Your task to perform on an android device: Toggle the flashlight Image 0: 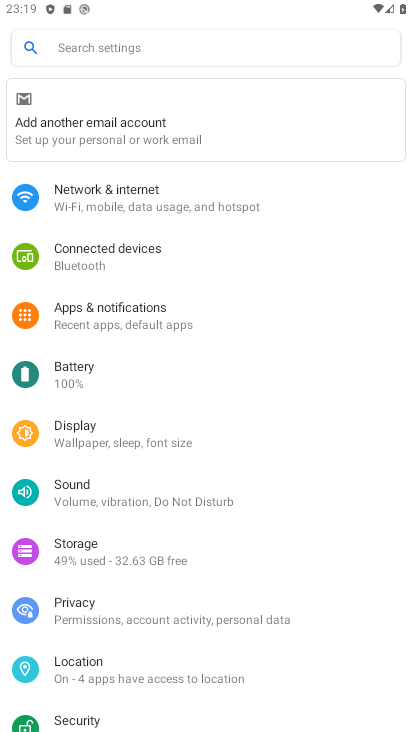
Step 0: press home button
Your task to perform on an android device: Toggle the flashlight Image 1: 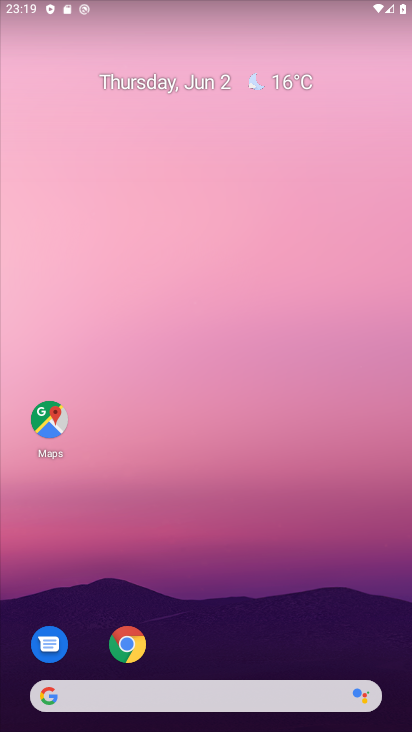
Step 1: drag from (175, 596) to (224, 193)
Your task to perform on an android device: Toggle the flashlight Image 2: 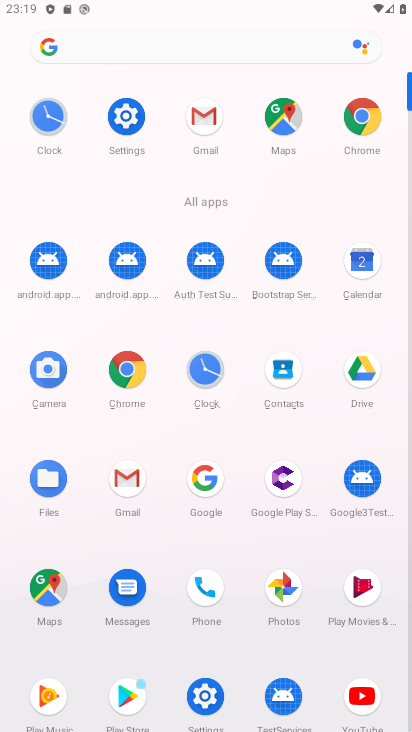
Step 2: click (202, 699)
Your task to perform on an android device: Toggle the flashlight Image 3: 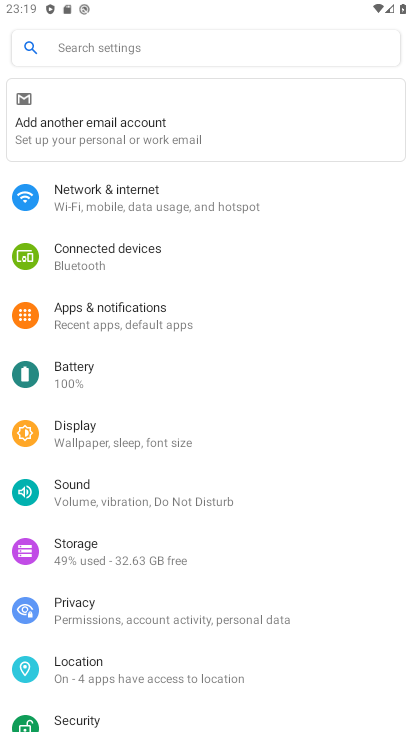
Step 3: click (101, 433)
Your task to perform on an android device: Toggle the flashlight Image 4: 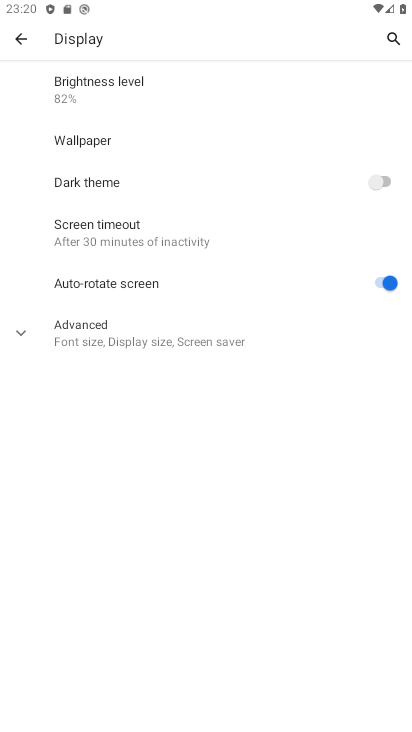
Step 4: task complete